Your task to perform on an android device: Add bose soundsport free to the cart on ebay.com Image 0: 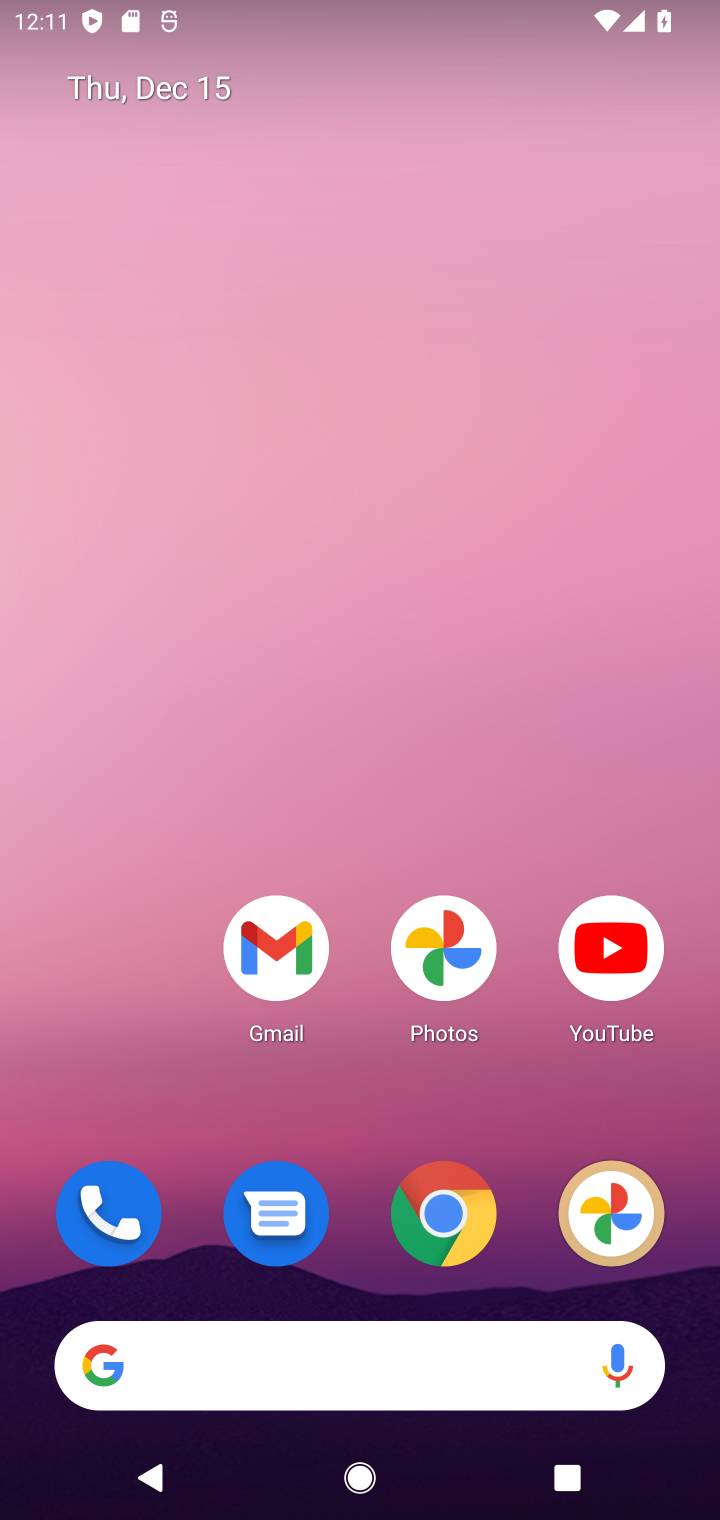
Step 0: click (456, 1261)
Your task to perform on an android device: Add bose soundsport free to the cart on ebay.com Image 1: 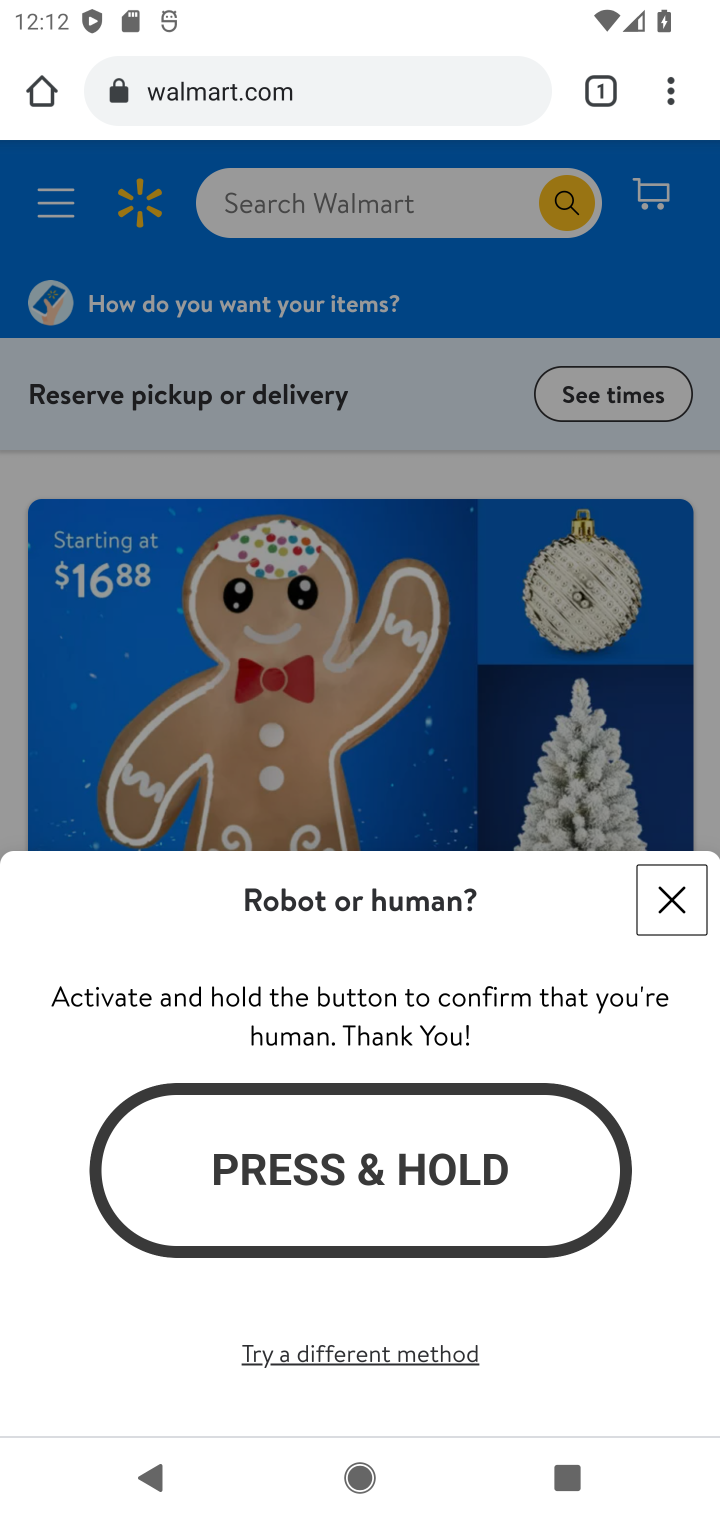
Step 1: task complete